Your task to perform on an android device: find which apps use the phone's location Image 0: 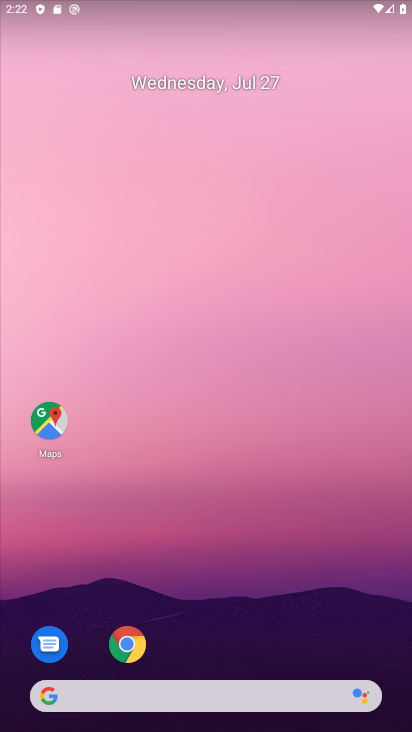
Step 0: drag from (223, 642) to (308, 3)
Your task to perform on an android device: find which apps use the phone's location Image 1: 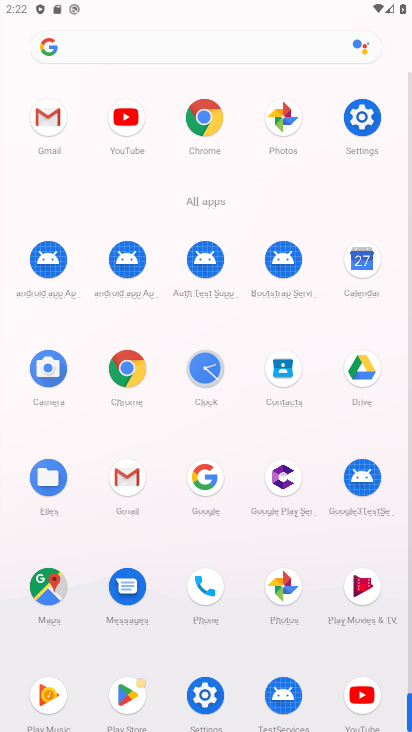
Step 1: click (207, 692)
Your task to perform on an android device: find which apps use the phone's location Image 2: 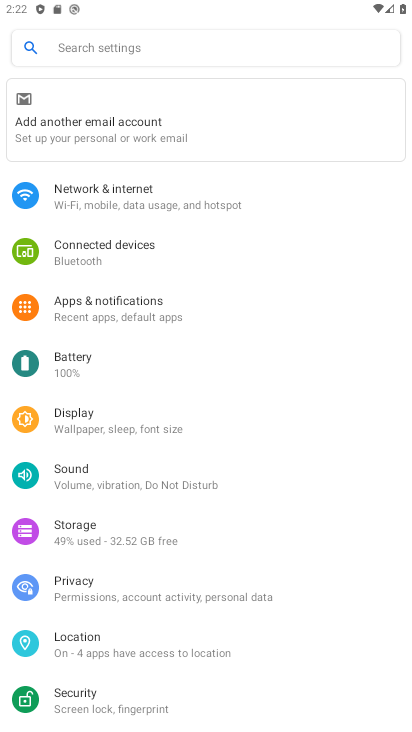
Step 2: click (147, 655)
Your task to perform on an android device: find which apps use the phone's location Image 3: 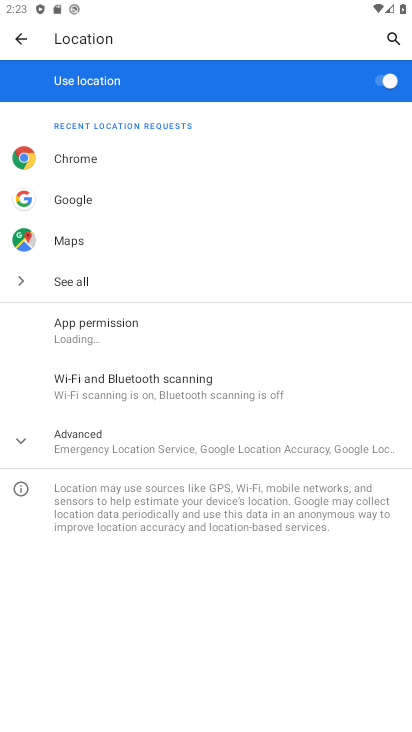
Step 3: click (101, 334)
Your task to perform on an android device: find which apps use the phone's location Image 4: 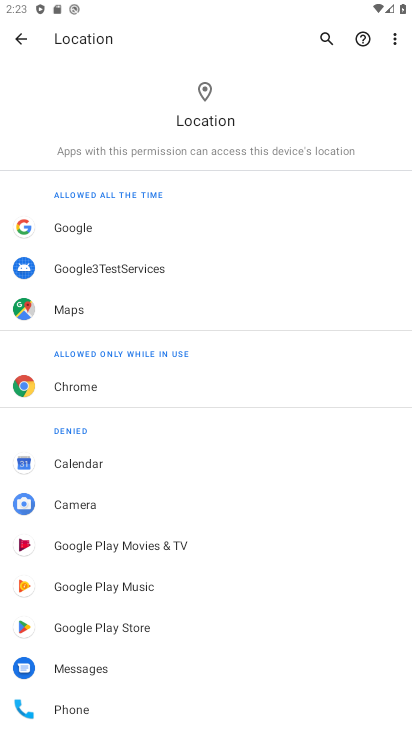
Step 4: task complete